Your task to perform on an android device: Open Google Maps and go to "Timeline" Image 0: 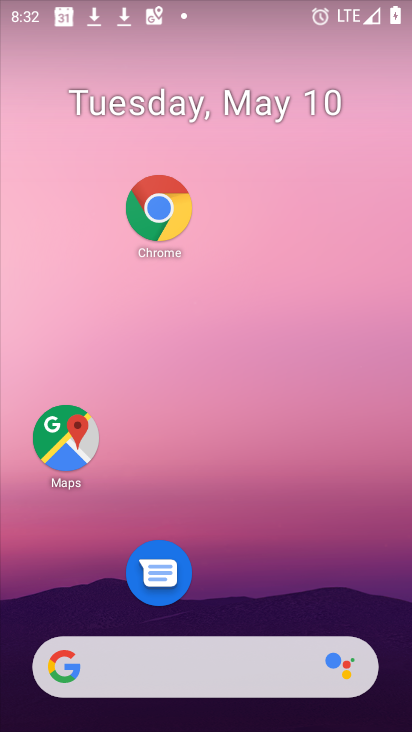
Step 0: press home button
Your task to perform on an android device: Open Google Maps and go to "Timeline" Image 1: 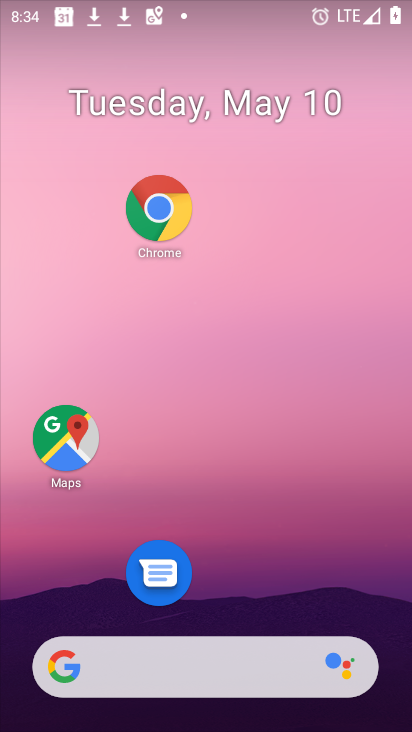
Step 1: drag from (257, 623) to (181, 283)
Your task to perform on an android device: Open Google Maps and go to "Timeline" Image 2: 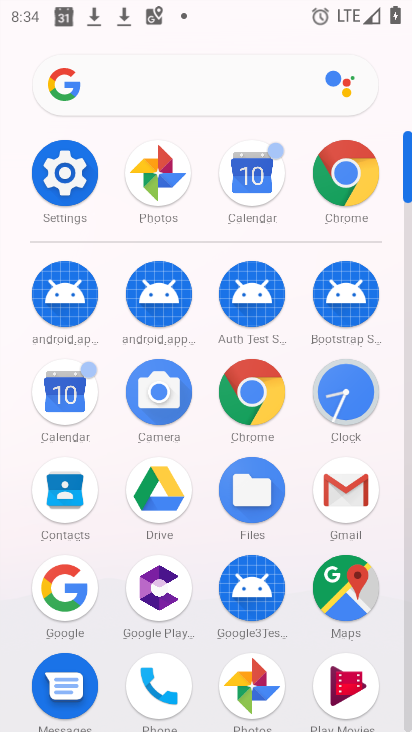
Step 2: click (338, 575)
Your task to perform on an android device: Open Google Maps and go to "Timeline" Image 3: 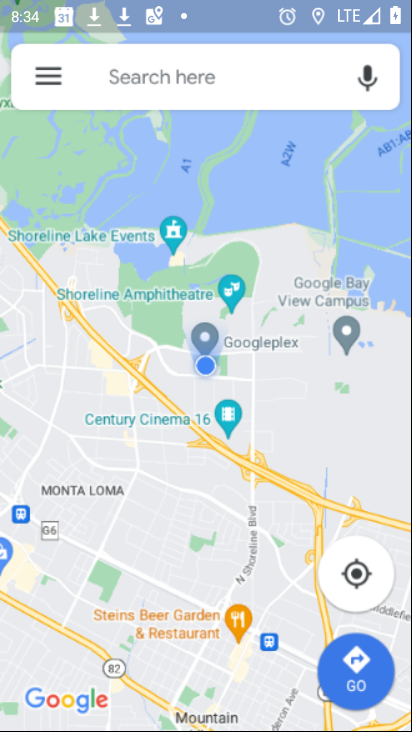
Step 3: click (64, 74)
Your task to perform on an android device: Open Google Maps and go to "Timeline" Image 4: 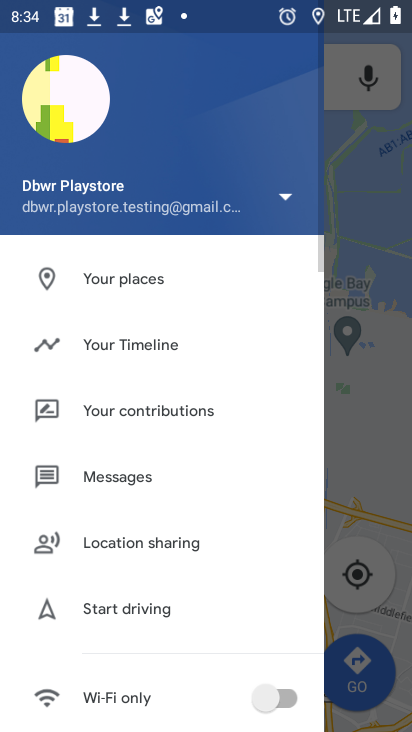
Step 4: click (137, 346)
Your task to perform on an android device: Open Google Maps and go to "Timeline" Image 5: 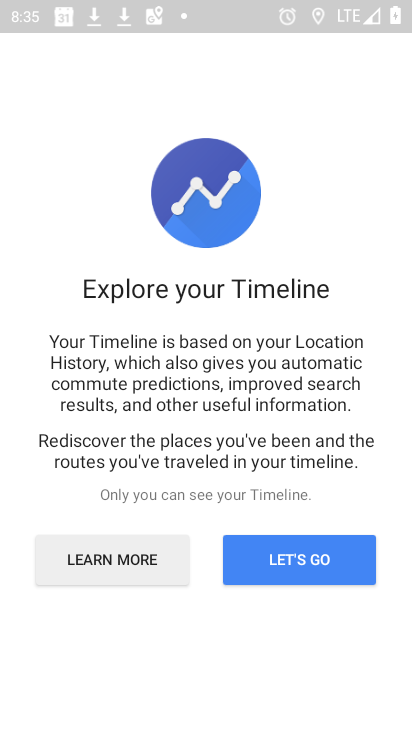
Step 5: click (298, 568)
Your task to perform on an android device: Open Google Maps and go to "Timeline" Image 6: 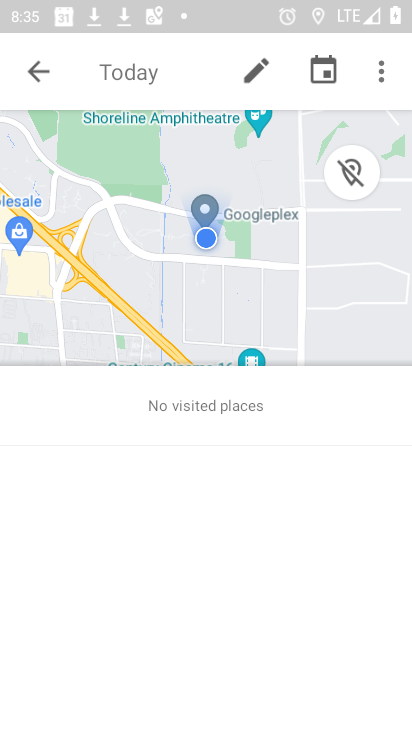
Step 6: task complete